Your task to perform on an android device: open chrome and create a bookmark for the current page Image 0: 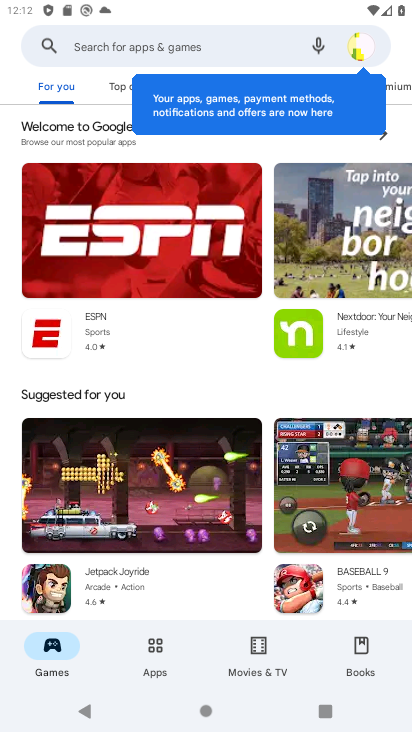
Step 0: press back button
Your task to perform on an android device: open chrome and create a bookmark for the current page Image 1: 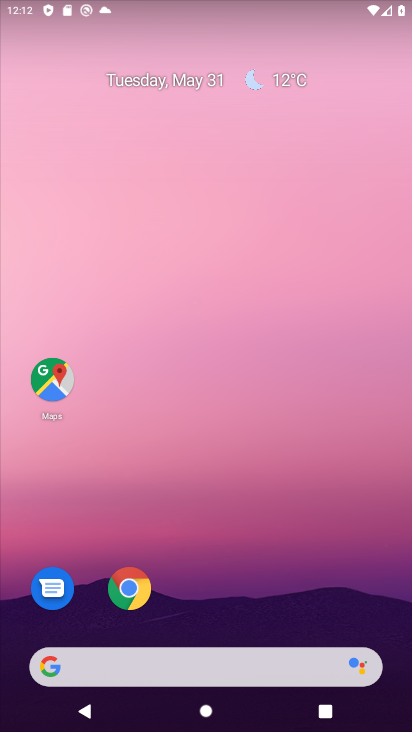
Step 1: drag from (390, 683) to (263, 63)
Your task to perform on an android device: open chrome and create a bookmark for the current page Image 2: 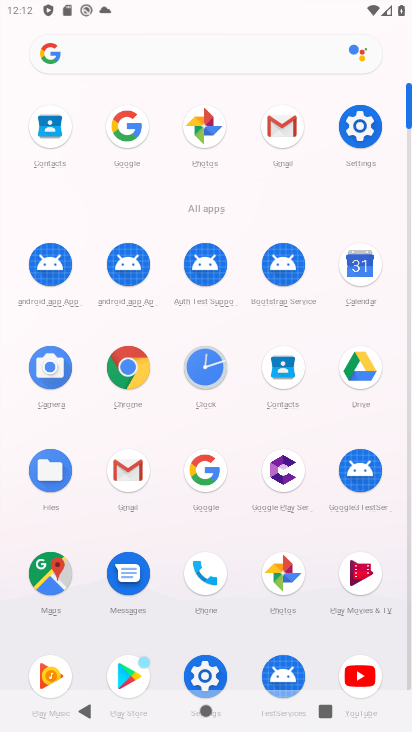
Step 2: click (141, 364)
Your task to perform on an android device: open chrome and create a bookmark for the current page Image 3: 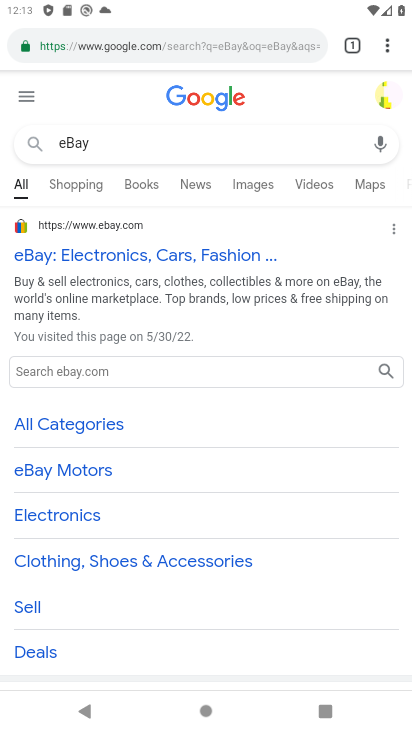
Step 3: click (387, 44)
Your task to perform on an android device: open chrome and create a bookmark for the current page Image 4: 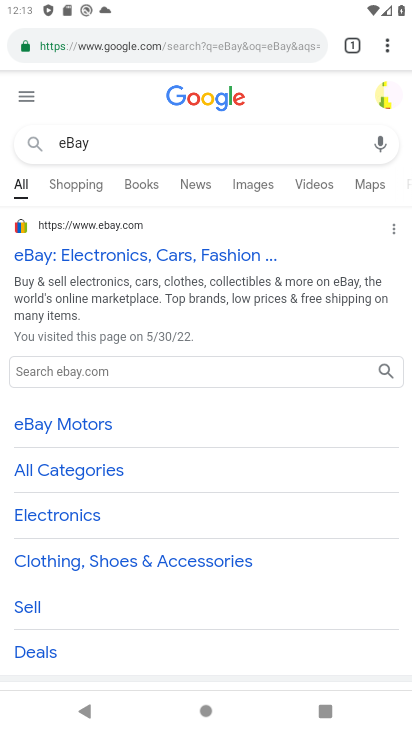
Step 4: click (386, 39)
Your task to perform on an android device: open chrome and create a bookmark for the current page Image 5: 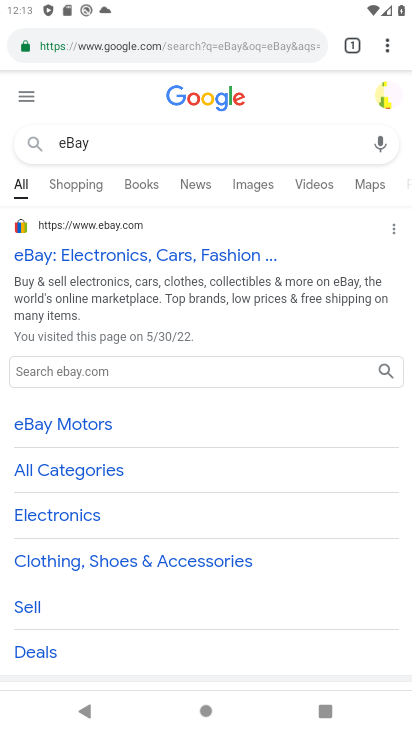
Step 5: click (385, 44)
Your task to perform on an android device: open chrome and create a bookmark for the current page Image 6: 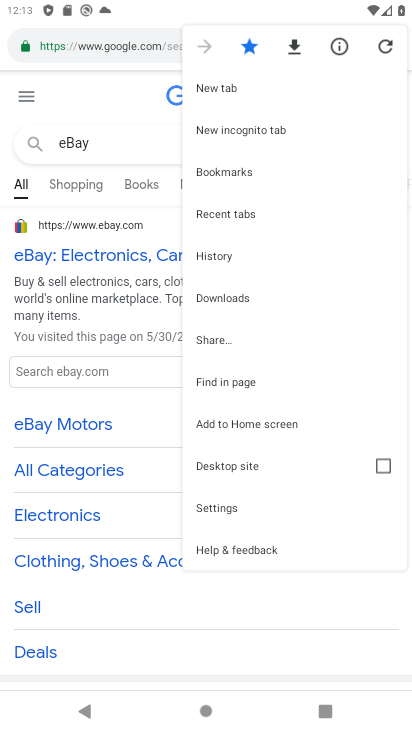
Step 6: click (131, 143)
Your task to perform on an android device: open chrome and create a bookmark for the current page Image 7: 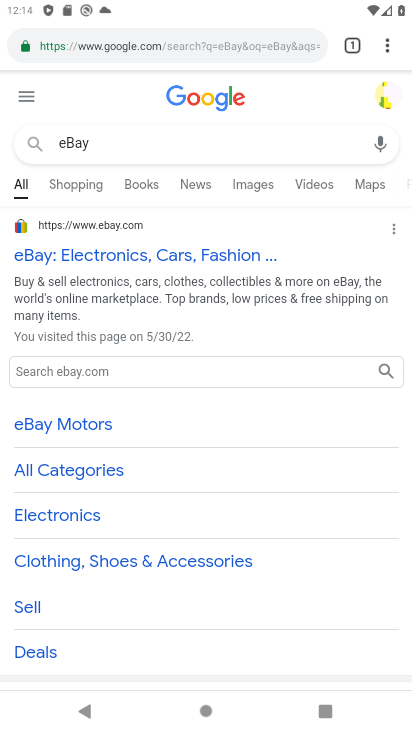
Step 7: task complete